Your task to perform on an android device: Clear all items from cart on newegg.com. Add alienware aurora to the cart on newegg.com Image 0: 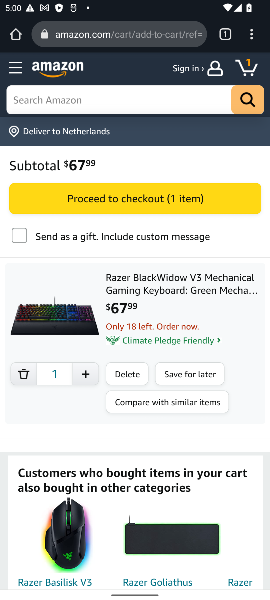
Step 0: click (83, 39)
Your task to perform on an android device: Clear all items from cart on newegg.com. Add alienware aurora to the cart on newegg.com Image 1: 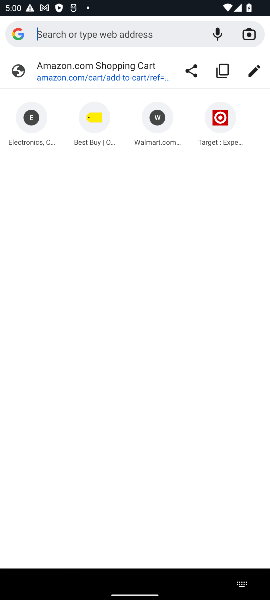
Step 1: type "newegg.com"
Your task to perform on an android device: Clear all items from cart on newegg.com. Add alienware aurora to the cart on newegg.com Image 2: 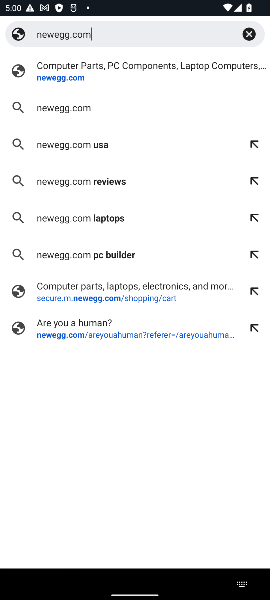
Step 2: click (120, 71)
Your task to perform on an android device: Clear all items from cart on newegg.com. Add alienware aurora to the cart on newegg.com Image 3: 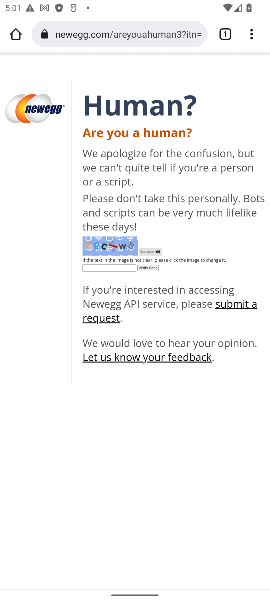
Step 3: task complete